Your task to perform on an android device: check battery use Image 0: 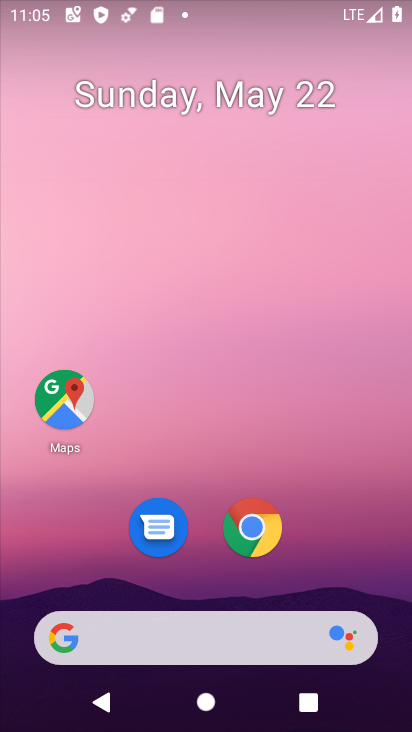
Step 0: drag from (357, 579) to (332, 138)
Your task to perform on an android device: check battery use Image 1: 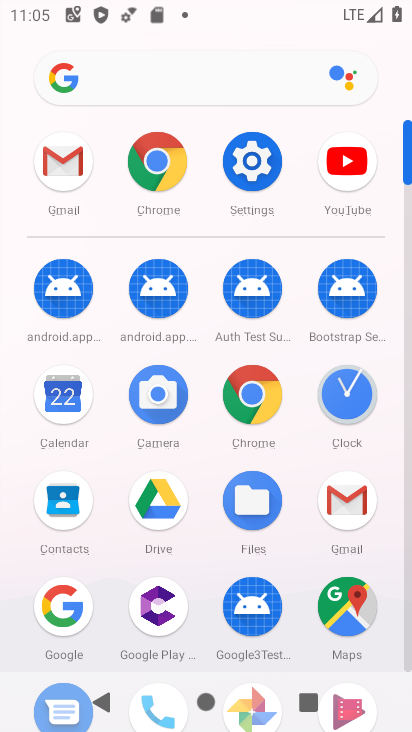
Step 1: click (255, 201)
Your task to perform on an android device: check battery use Image 2: 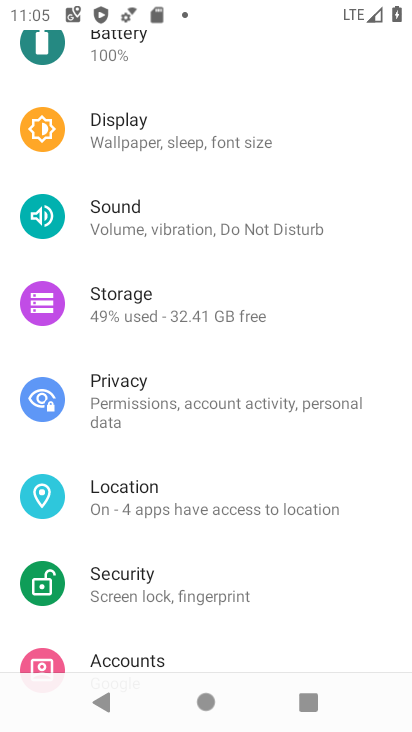
Step 2: drag from (172, 334) to (159, 520)
Your task to perform on an android device: check battery use Image 3: 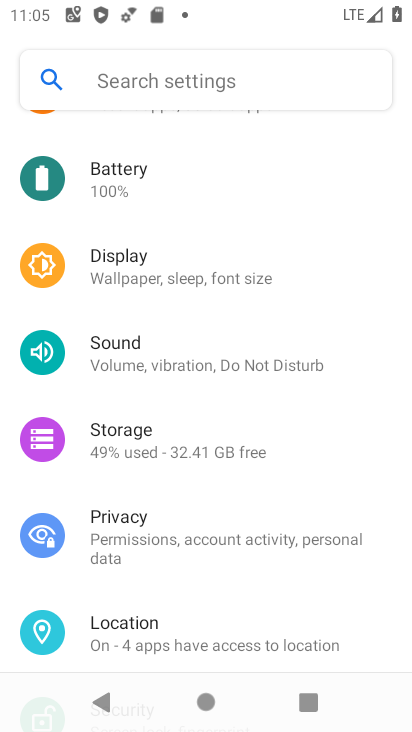
Step 3: click (203, 204)
Your task to perform on an android device: check battery use Image 4: 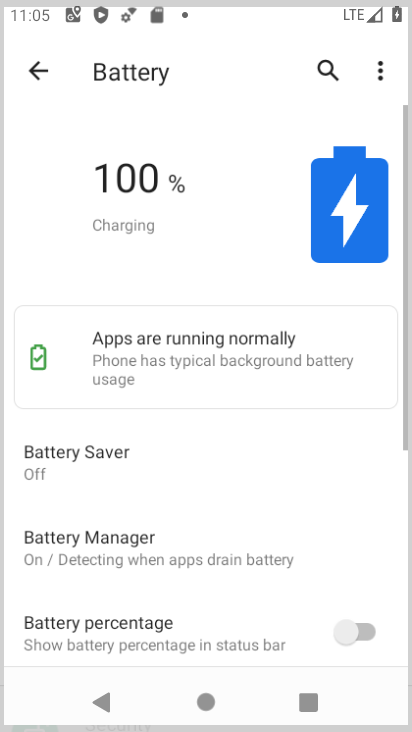
Step 4: task complete